Your task to perform on an android device: Search for pizza restaurants on Maps Image 0: 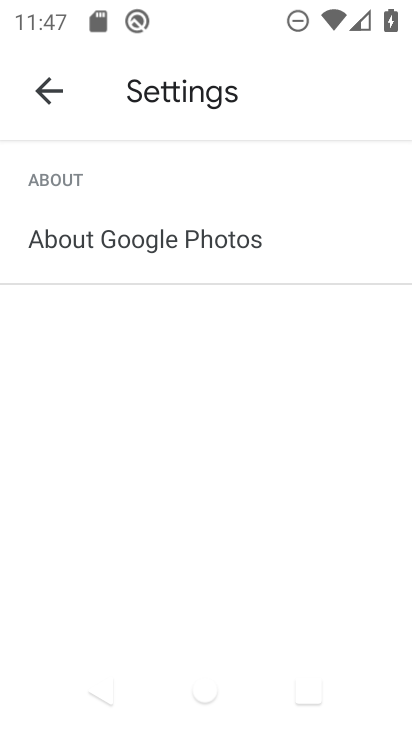
Step 0: press home button
Your task to perform on an android device: Search for pizza restaurants on Maps Image 1: 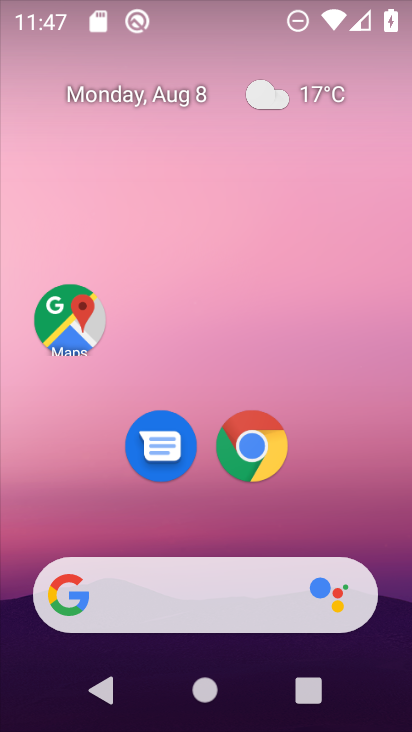
Step 1: click (71, 323)
Your task to perform on an android device: Search for pizza restaurants on Maps Image 2: 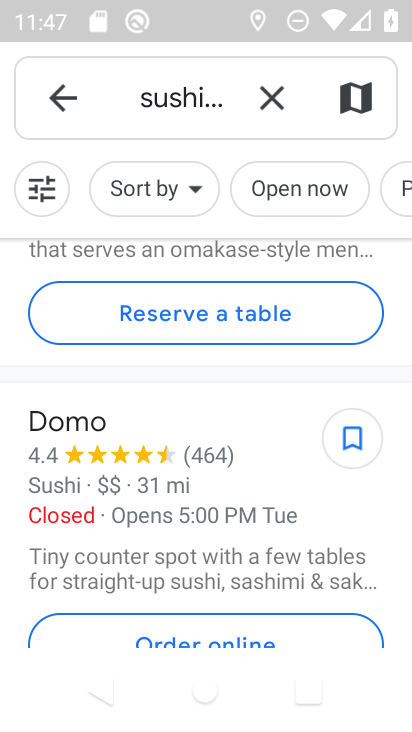
Step 2: click (268, 97)
Your task to perform on an android device: Search for pizza restaurants on Maps Image 3: 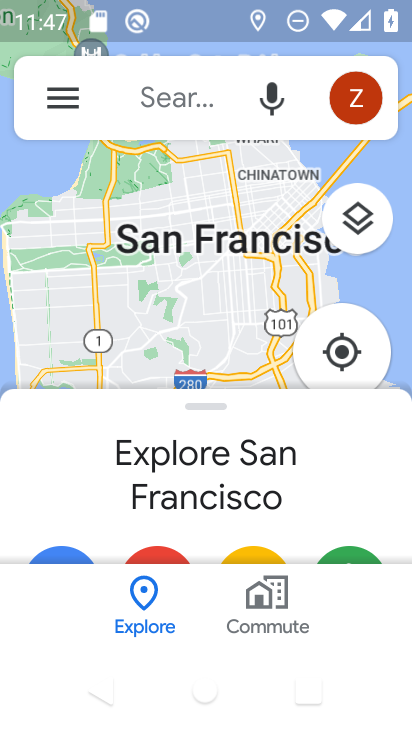
Step 3: click (126, 103)
Your task to perform on an android device: Search for pizza restaurants on Maps Image 4: 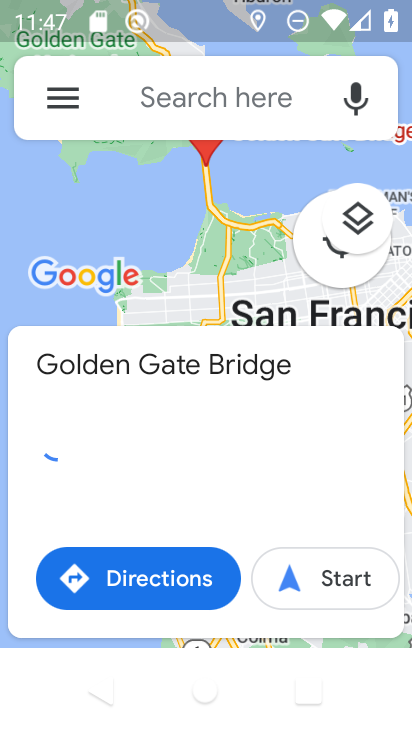
Step 4: click (191, 92)
Your task to perform on an android device: Search for pizza restaurants on Maps Image 5: 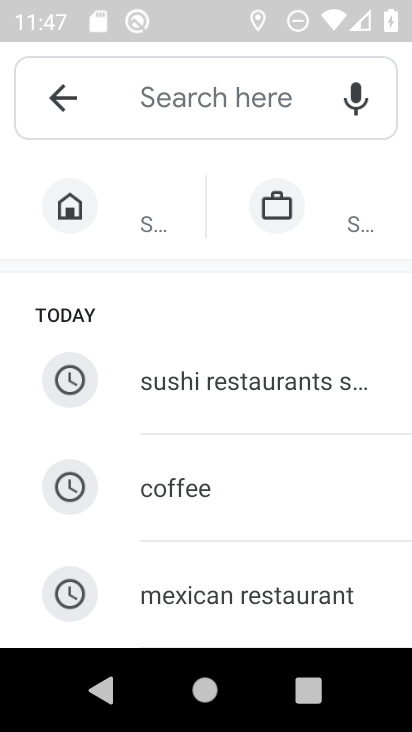
Step 5: type "pizza restaurants"
Your task to perform on an android device: Search for pizza restaurants on Maps Image 6: 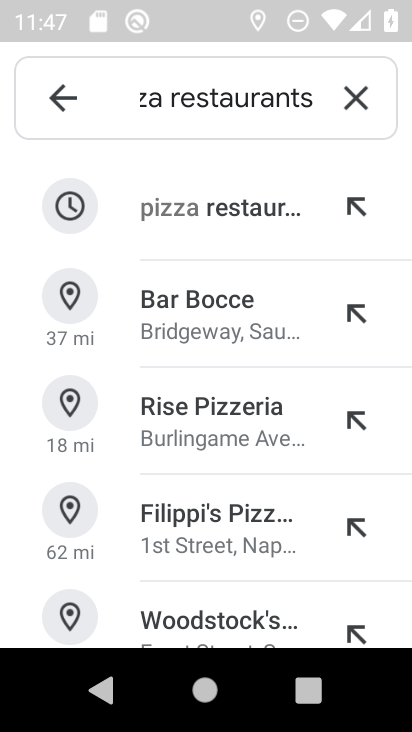
Step 6: click (231, 222)
Your task to perform on an android device: Search for pizza restaurants on Maps Image 7: 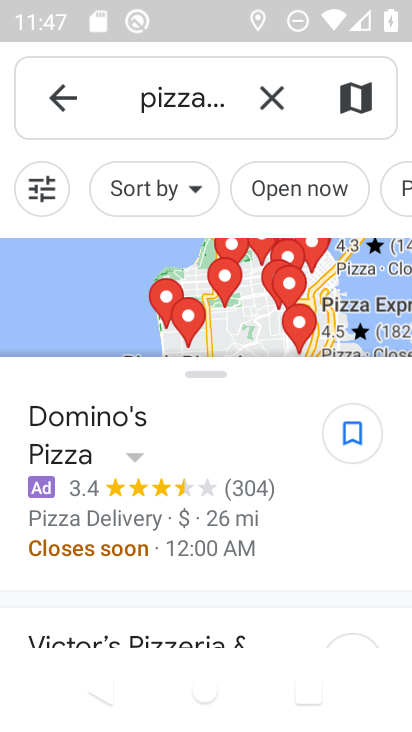
Step 7: task complete